Your task to perform on an android device: see tabs open on other devices in the chrome app Image 0: 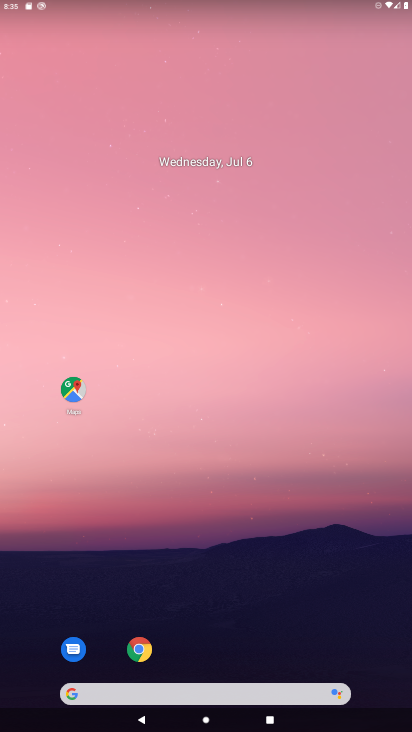
Step 0: click (219, 278)
Your task to perform on an android device: see tabs open on other devices in the chrome app Image 1: 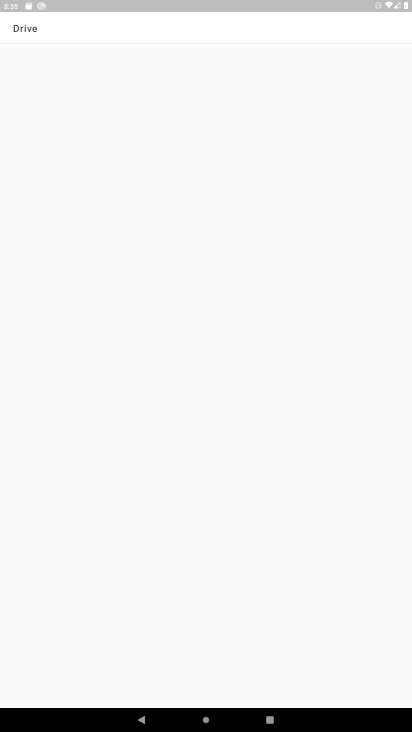
Step 1: press back button
Your task to perform on an android device: see tabs open on other devices in the chrome app Image 2: 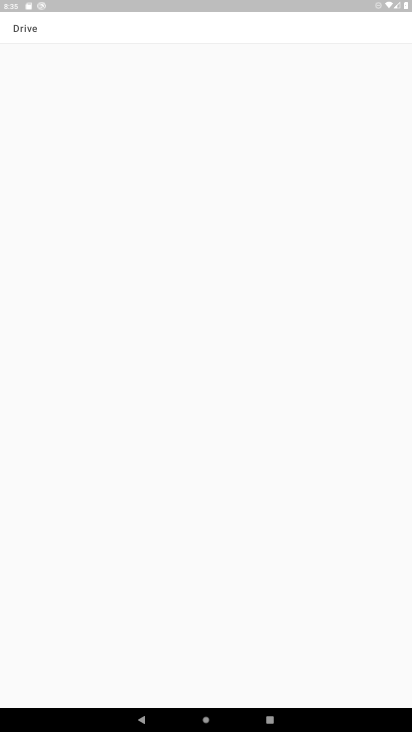
Step 2: click (102, 121)
Your task to perform on an android device: see tabs open on other devices in the chrome app Image 3: 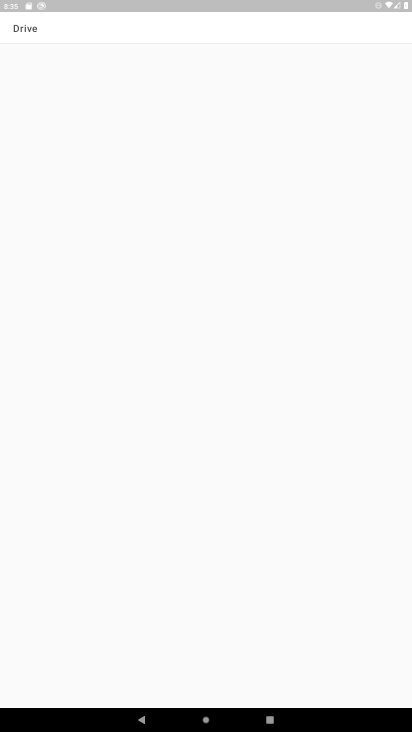
Step 3: press back button
Your task to perform on an android device: see tabs open on other devices in the chrome app Image 4: 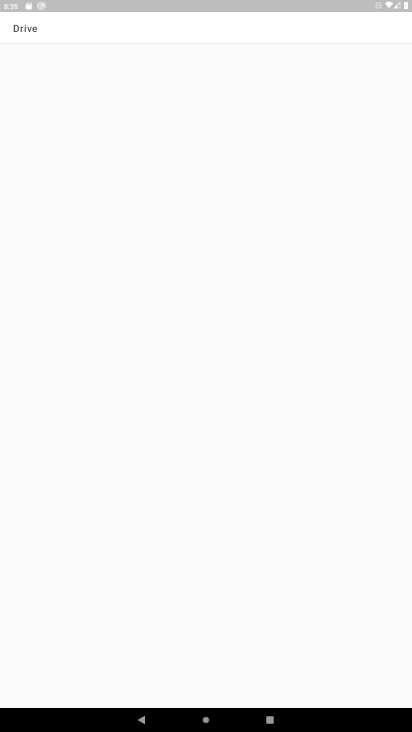
Step 4: press home button
Your task to perform on an android device: see tabs open on other devices in the chrome app Image 5: 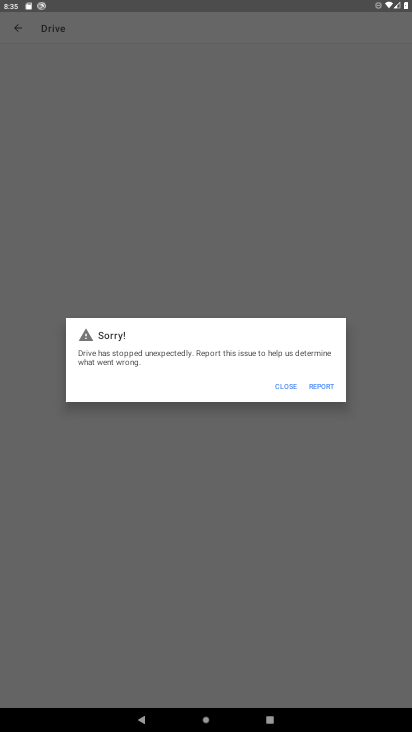
Step 5: click (0, 114)
Your task to perform on an android device: see tabs open on other devices in the chrome app Image 6: 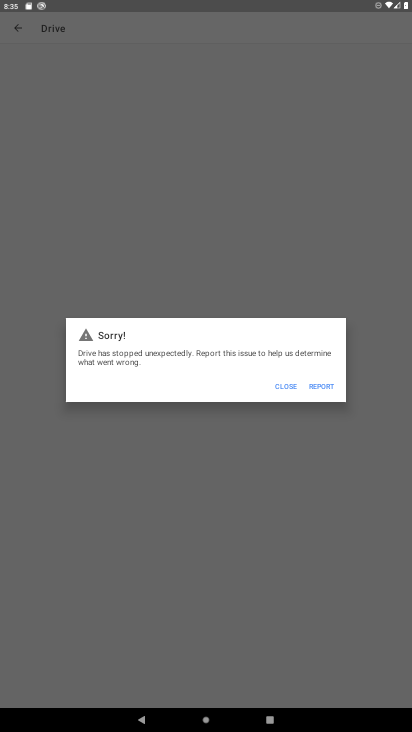
Step 6: press back button
Your task to perform on an android device: see tabs open on other devices in the chrome app Image 7: 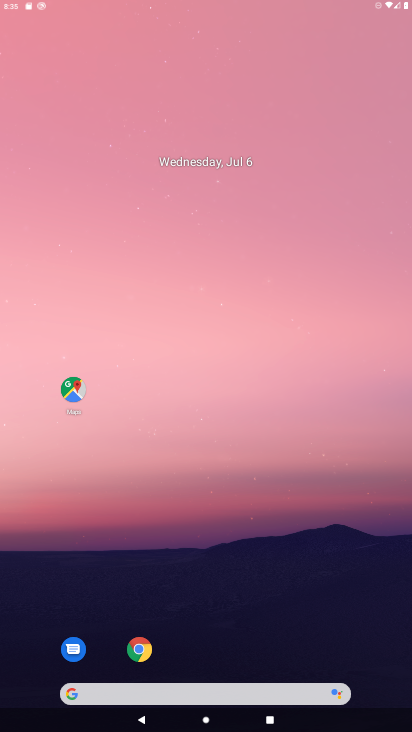
Step 7: press back button
Your task to perform on an android device: see tabs open on other devices in the chrome app Image 8: 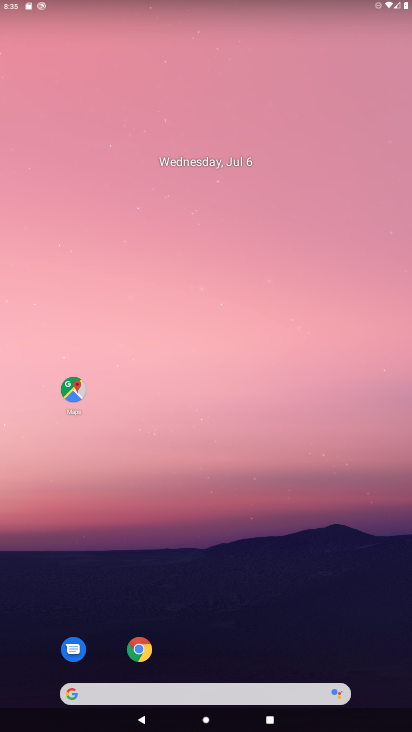
Step 8: drag from (263, 673) to (257, 99)
Your task to perform on an android device: see tabs open on other devices in the chrome app Image 9: 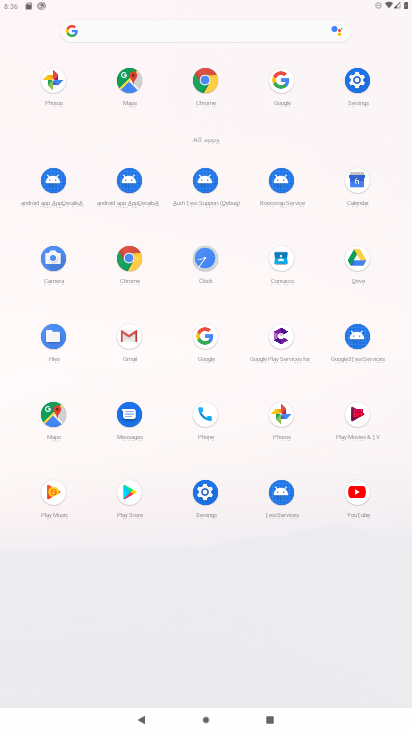
Step 9: click (125, 265)
Your task to perform on an android device: see tabs open on other devices in the chrome app Image 10: 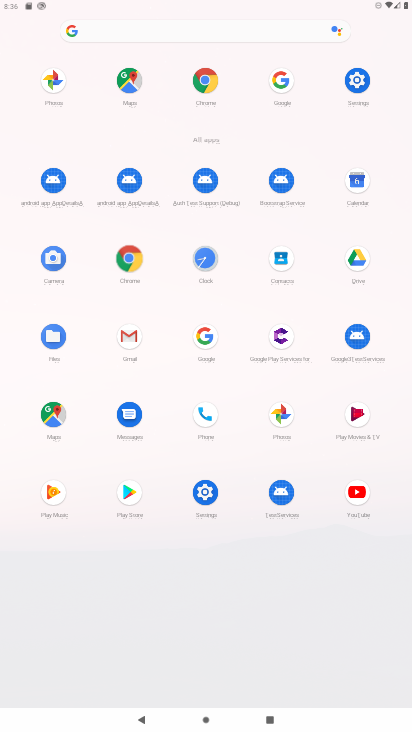
Step 10: click (125, 264)
Your task to perform on an android device: see tabs open on other devices in the chrome app Image 11: 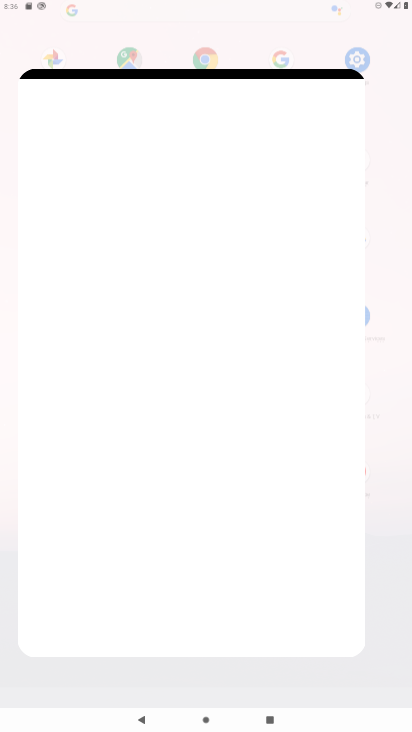
Step 11: click (125, 263)
Your task to perform on an android device: see tabs open on other devices in the chrome app Image 12: 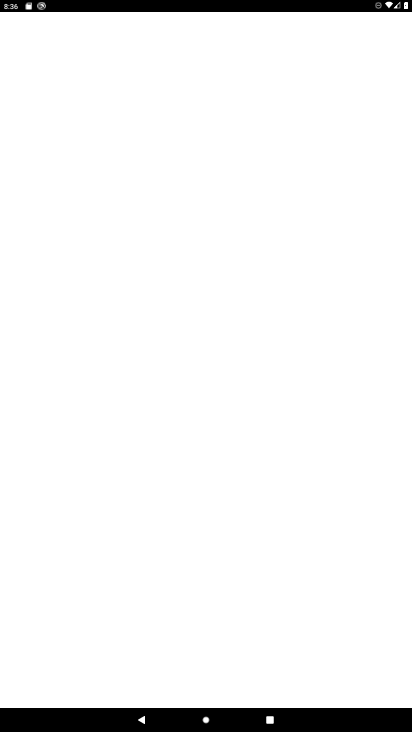
Step 12: click (128, 262)
Your task to perform on an android device: see tabs open on other devices in the chrome app Image 13: 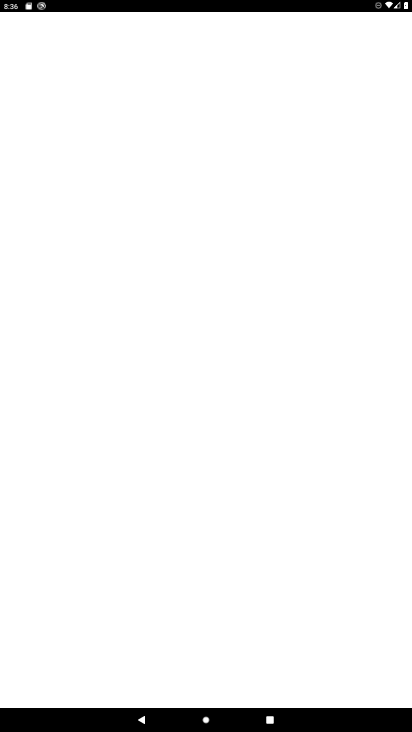
Step 13: click (130, 260)
Your task to perform on an android device: see tabs open on other devices in the chrome app Image 14: 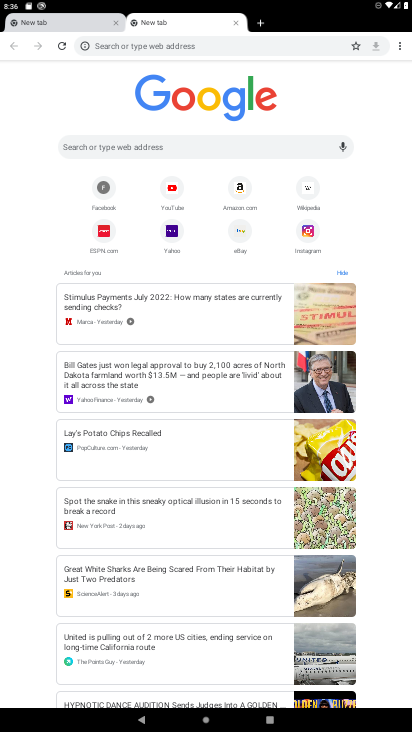
Step 14: drag from (398, 40) to (317, 116)
Your task to perform on an android device: see tabs open on other devices in the chrome app Image 15: 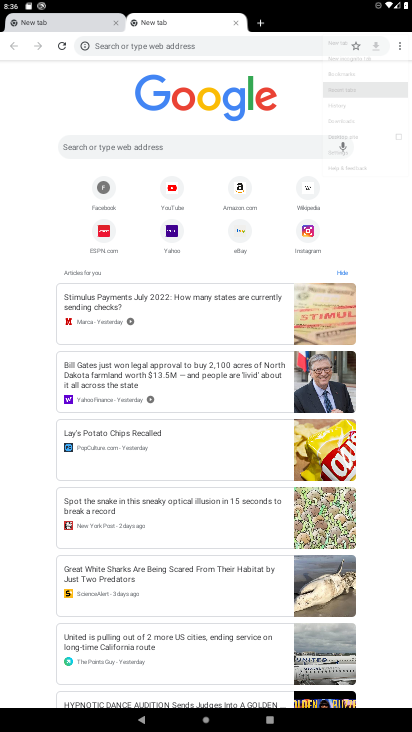
Step 15: click (317, 116)
Your task to perform on an android device: see tabs open on other devices in the chrome app Image 16: 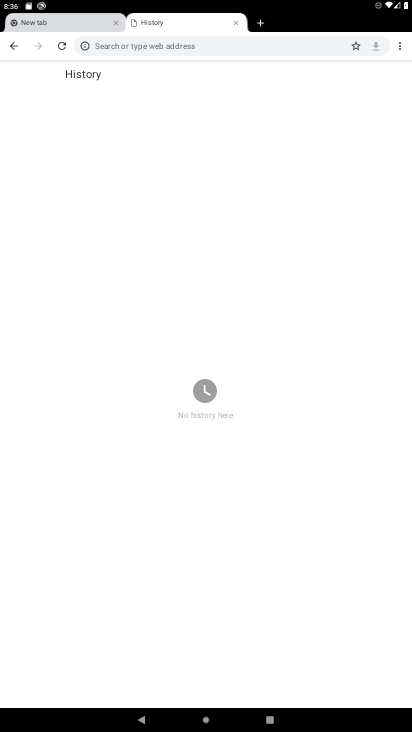
Step 16: click (8, 46)
Your task to perform on an android device: see tabs open on other devices in the chrome app Image 17: 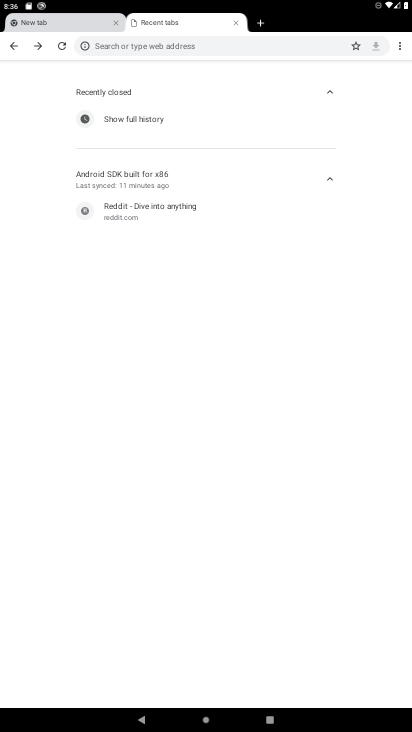
Step 17: drag from (396, 44) to (321, 117)
Your task to perform on an android device: see tabs open on other devices in the chrome app Image 18: 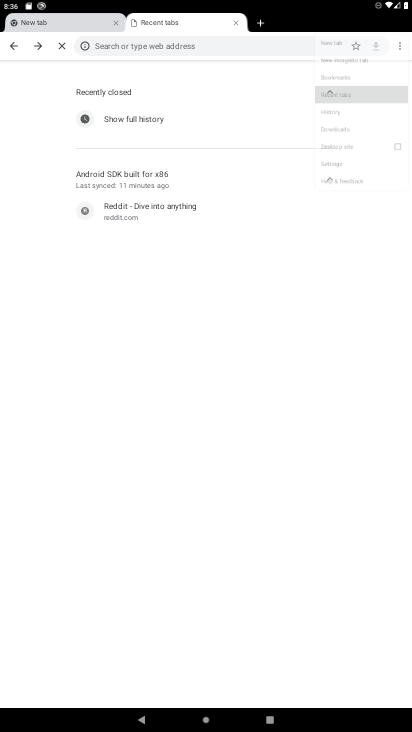
Step 18: click (320, 118)
Your task to perform on an android device: see tabs open on other devices in the chrome app Image 19: 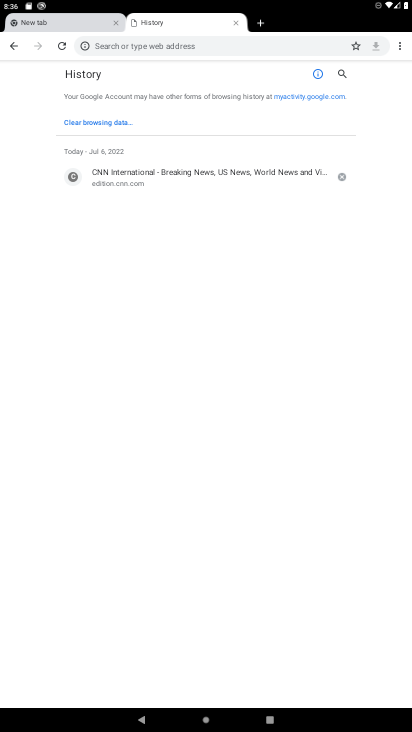
Step 19: task complete